Your task to perform on an android device: Go to location settings Image 0: 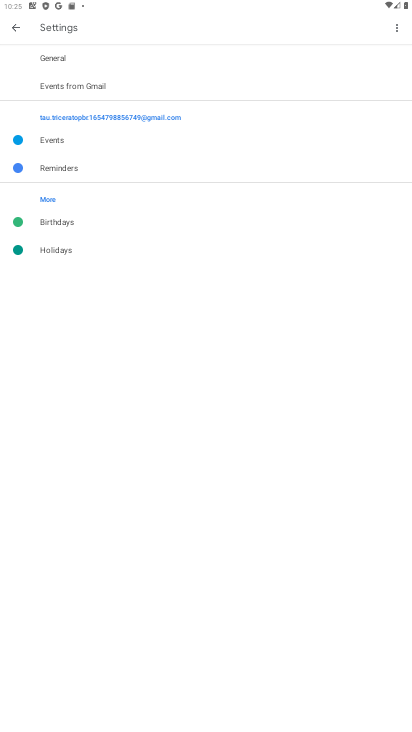
Step 0: press home button
Your task to perform on an android device: Go to location settings Image 1: 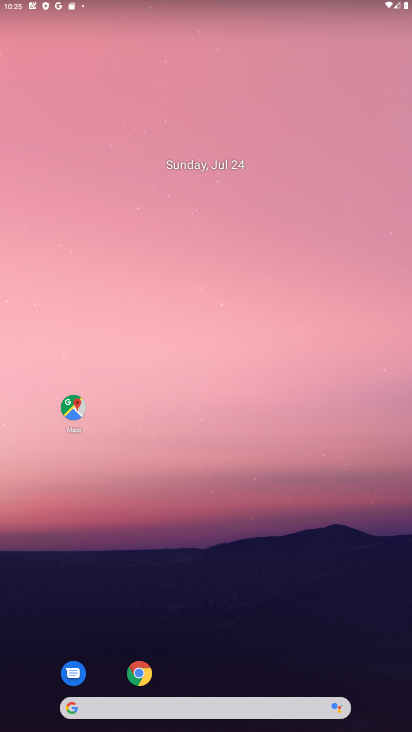
Step 1: drag from (16, 693) to (201, 197)
Your task to perform on an android device: Go to location settings Image 2: 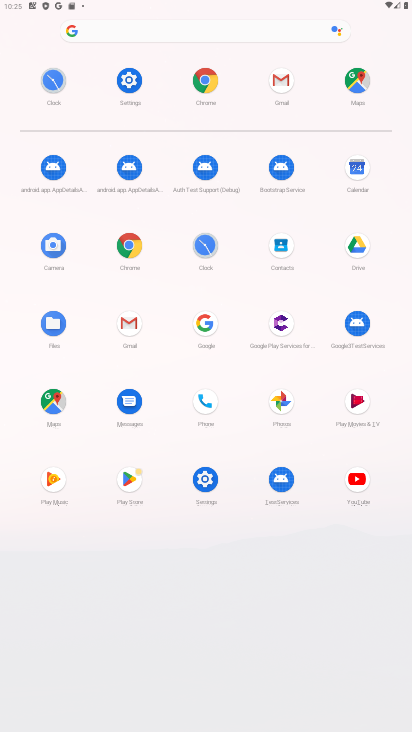
Step 2: click (206, 479)
Your task to perform on an android device: Go to location settings Image 3: 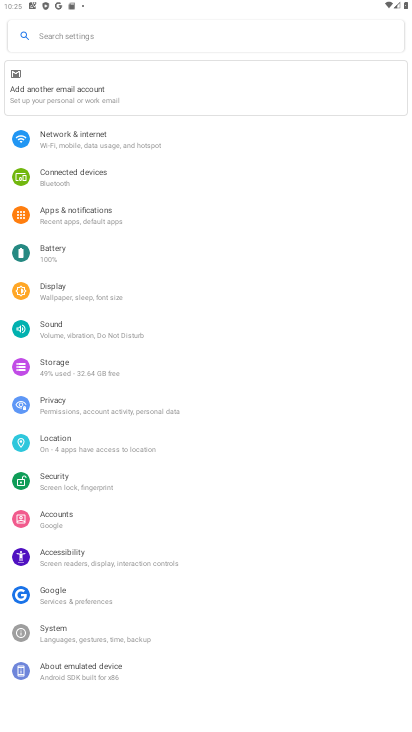
Step 3: click (68, 440)
Your task to perform on an android device: Go to location settings Image 4: 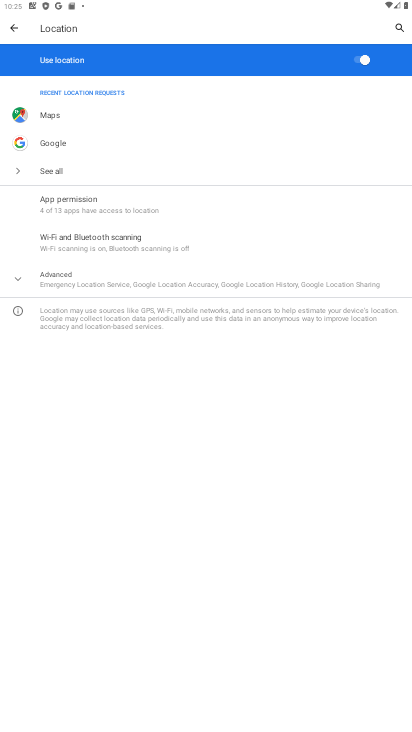
Step 4: click (70, 280)
Your task to perform on an android device: Go to location settings Image 5: 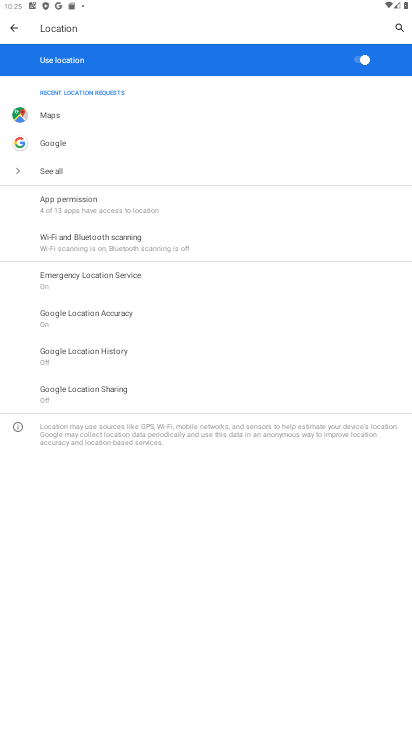
Step 5: task complete